Your task to perform on an android device: turn on wifi Image 0: 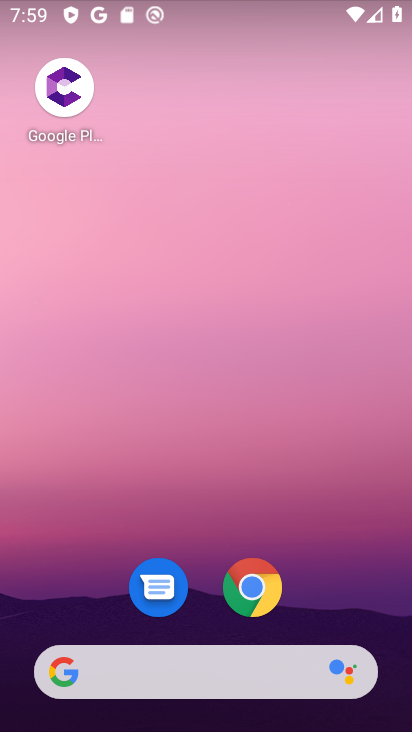
Step 0: drag from (192, 6) to (191, 541)
Your task to perform on an android device: turn on wifi Image 1: 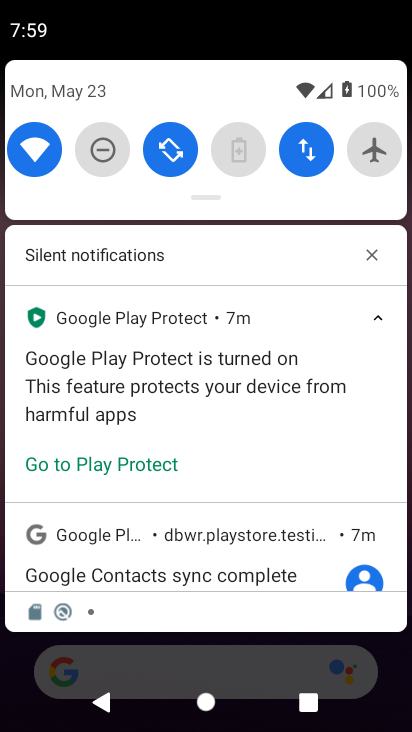
Step 1: task complete